Your task to perform on an android device: clear history in the chrome app Image 0: 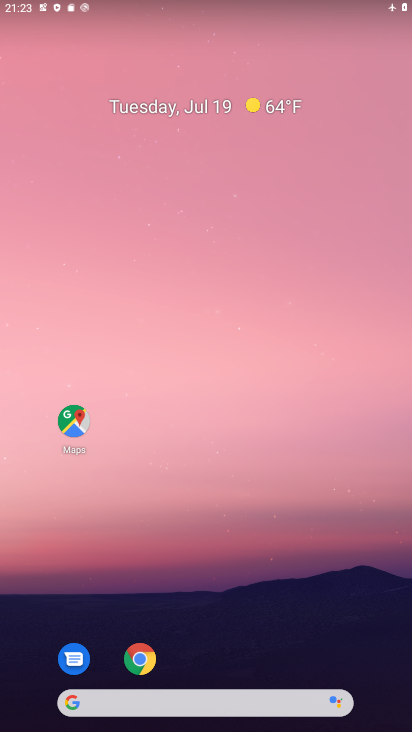
Step 0: click (145, 664)
Your task to perform on an android device: clear history in the chrome app Image 1: 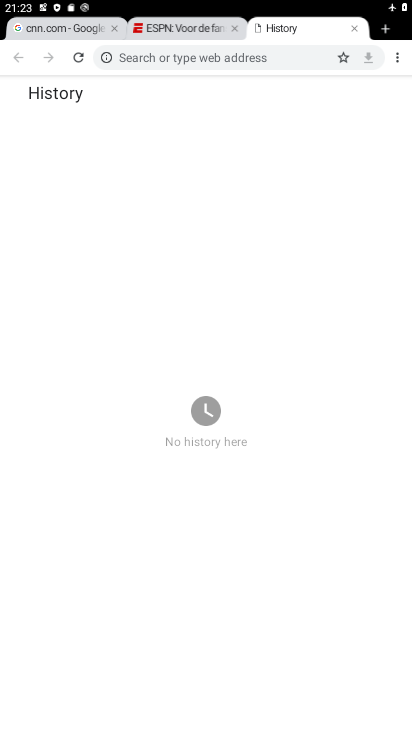
Step 1: task complete